Your task to perform on an android device: Open Wikipedia Image 0: 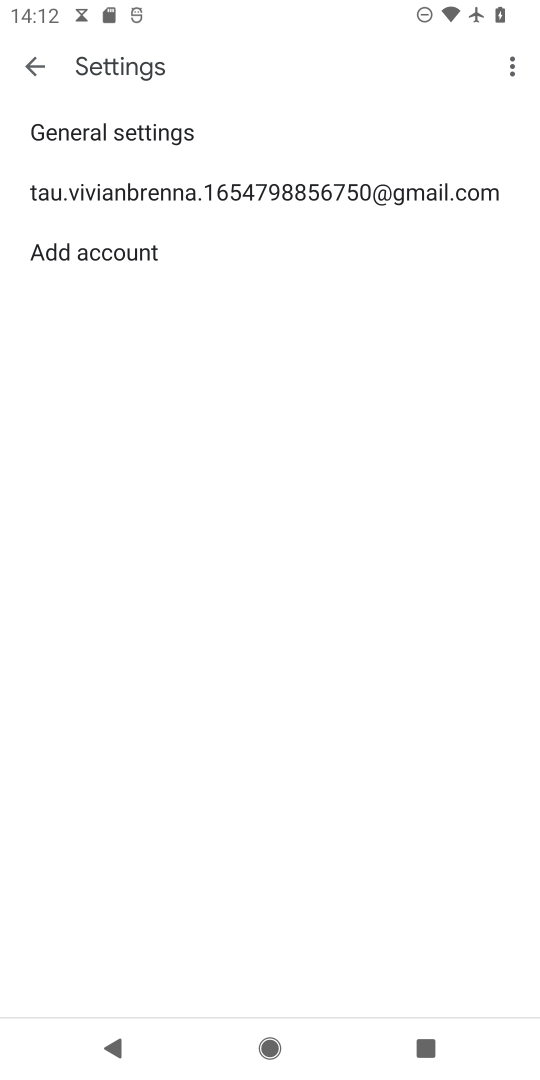
Step 0: press home button
Your task to perform on an android device: Open Wikipedia Image 1: 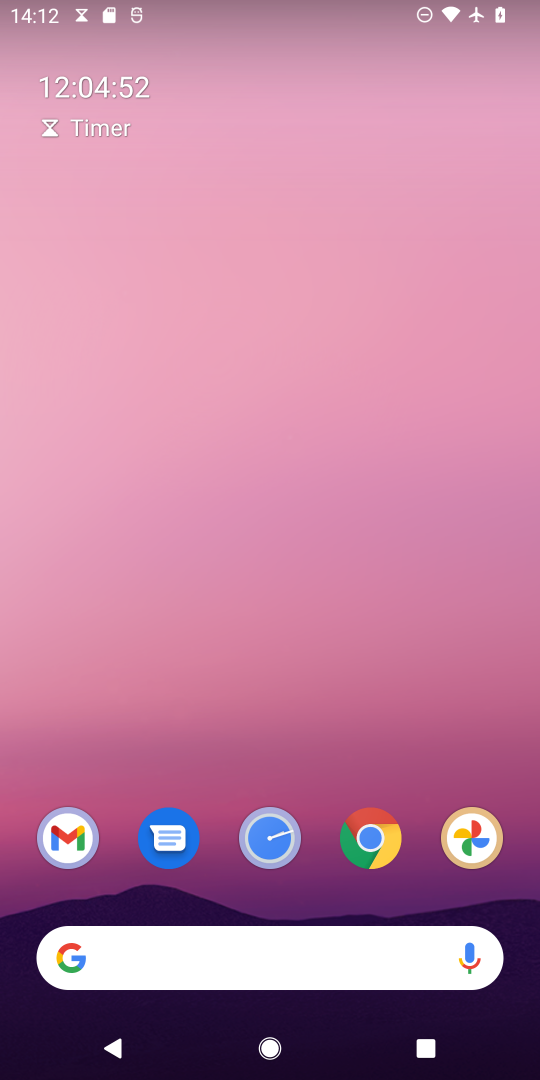
Step 1: click (70, 959)
Your task to perform on an android device: Open Wikipedia Image 2: 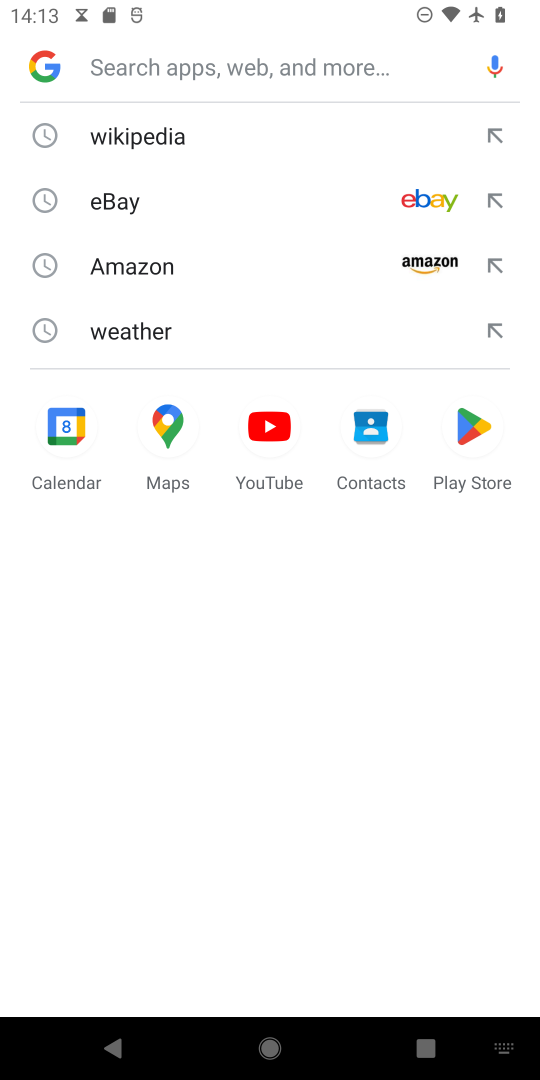
Step 2: click (126, 136)
Your task to perform on an android device: Open Wikipedia Image 3: 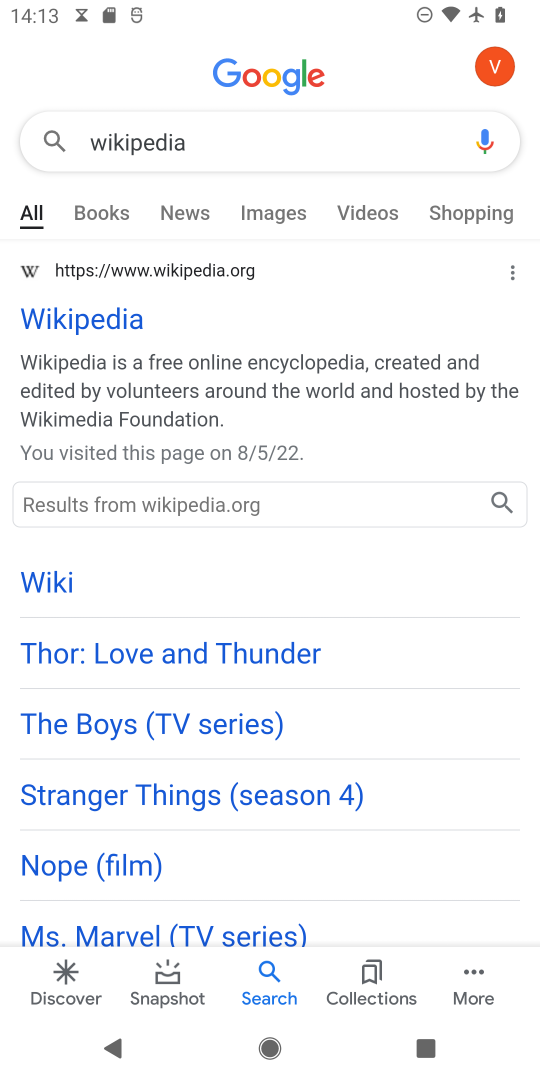
Step 3: click (71, 324)
Your task to perform on an android device: Open Wikipedia Image 4: 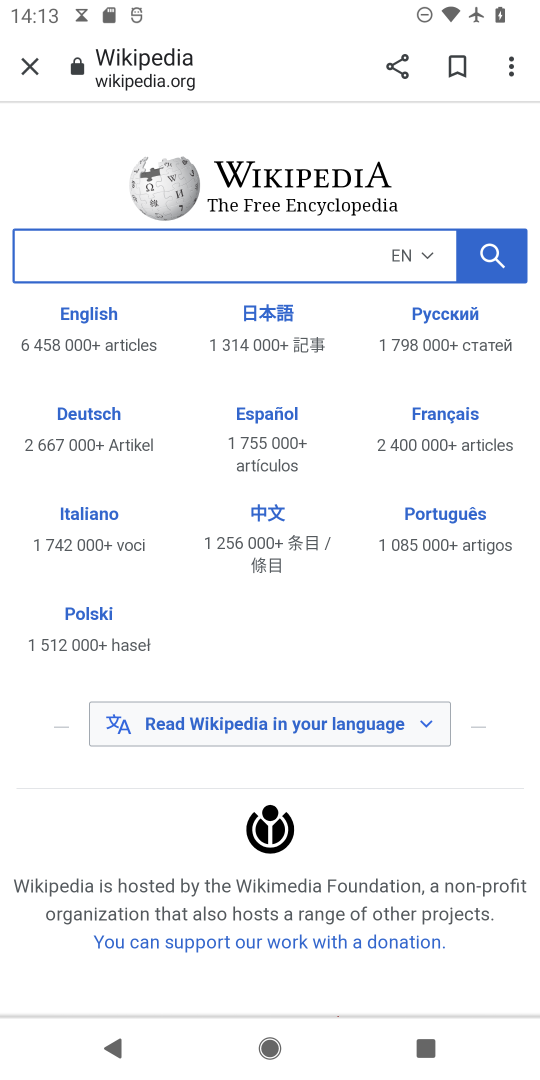
Step 4: task complete